Your task to perform on an android device: Open the map Image 0: 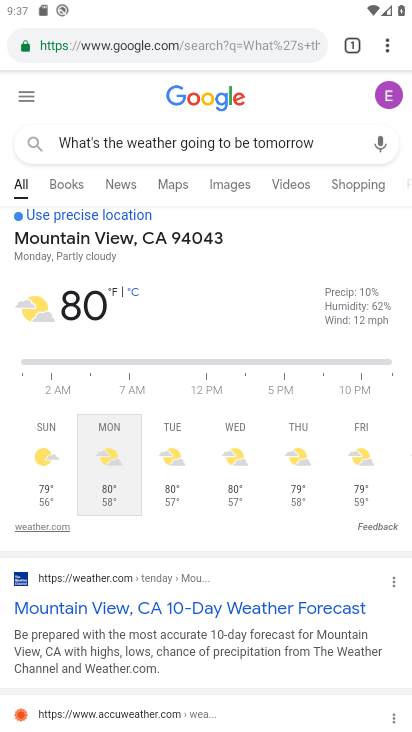
Step 0: press home button
Your task to perform on an android device: Open the map Image 1: 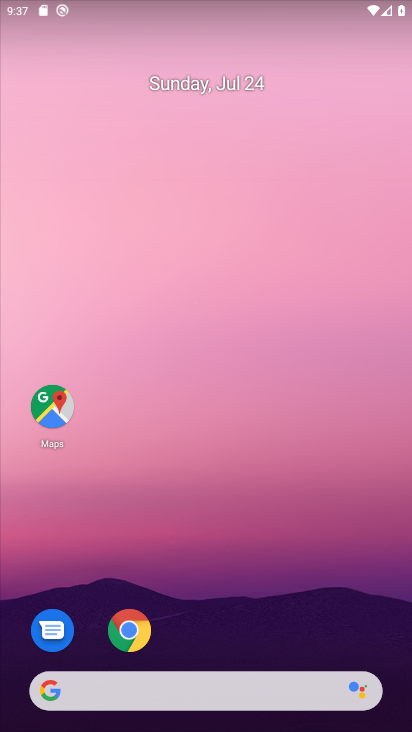
Step 1: drag from (169, 701) to (149, 533)
Your task to perform on an android device: Open the map Image 2: 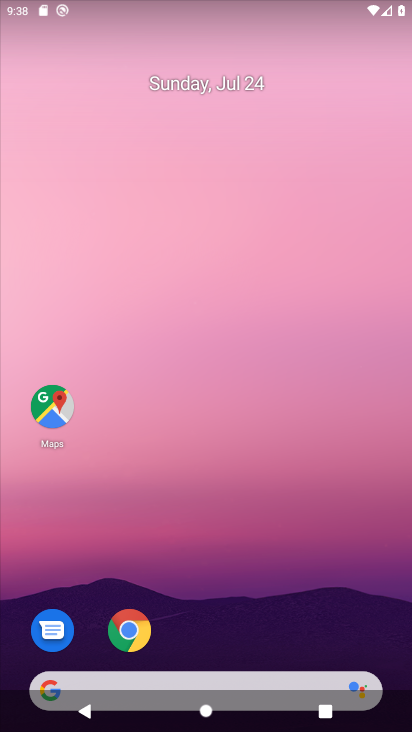
Step 2: click (49, 399)
Your task to perform on an android device: Open the map Image 3: 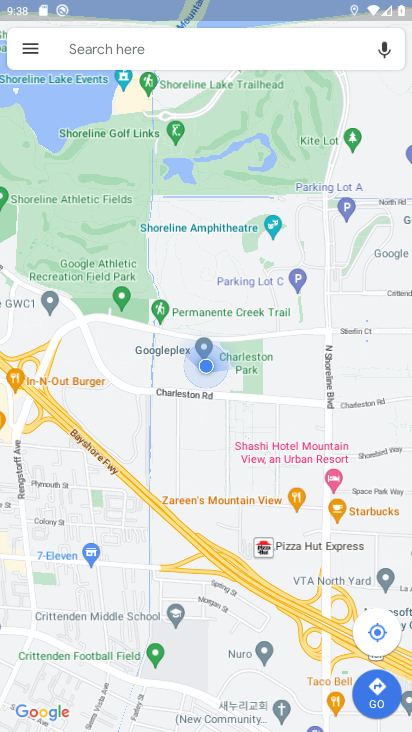
Step 3: task complete